Your task to perform on an android device: open wifi settings Image 0: 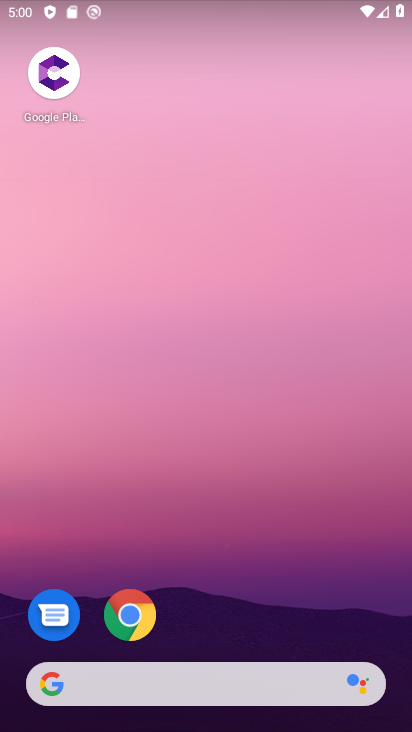
Step 0: drag from (212, 720) to (221, 238)
Your task to perform on an android device: open wifi settings Image 1: 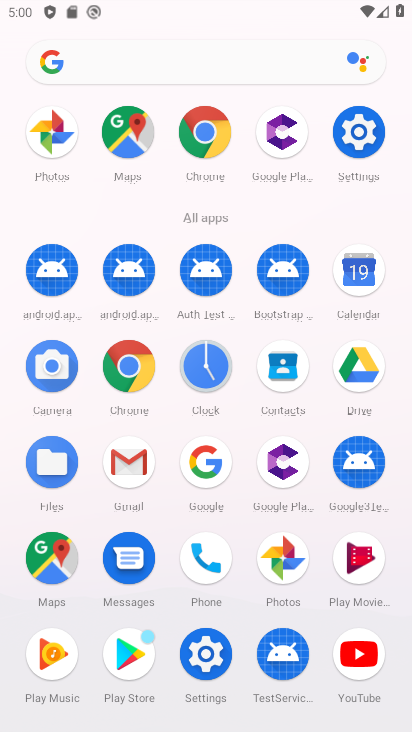
Step 1: click (360, 127)
Your task to perform on an android device: open wifi settings Image 2: 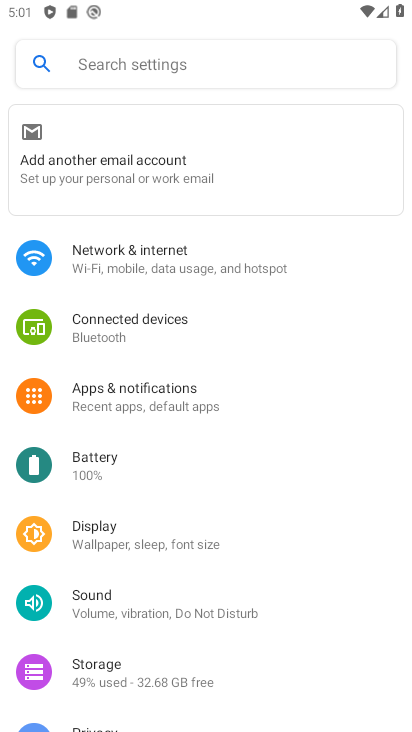
Step 2: click (144, 264)
Your task to perform on an android device: open wifi settings Image 3: 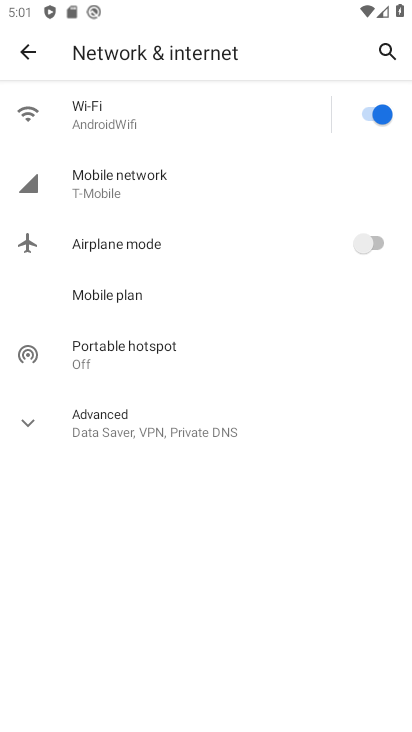
Step 3: click (105, 114)
Your task to perform on an android device: open wifi settings Image 4: 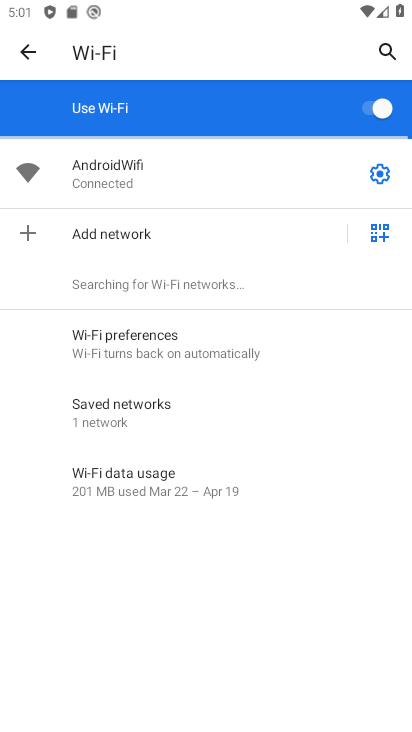
Step 4: click (381, 170)
Your task to perform on an android device: open wifi settings Image 5: 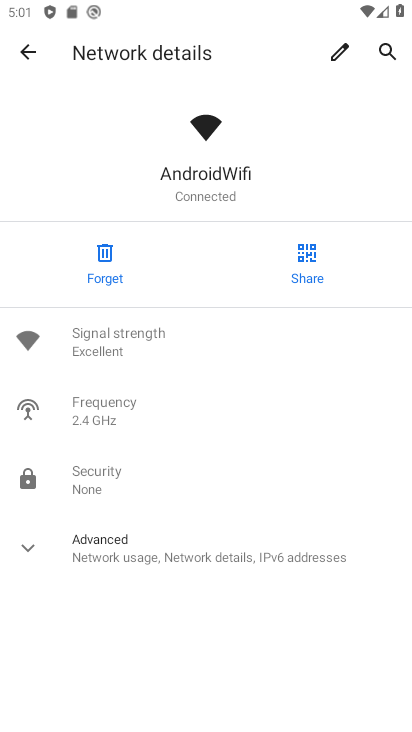
Step 5: task complete